Your task to perform on an android device: Go to privacy settings Image 0: 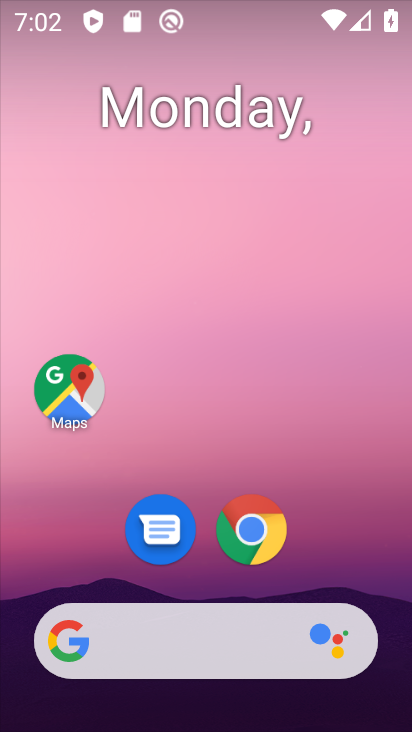
Step 0: drag from (326, 527) to (204, 84)
Your task to perform on an android device: Go to privacy settings Image 1: 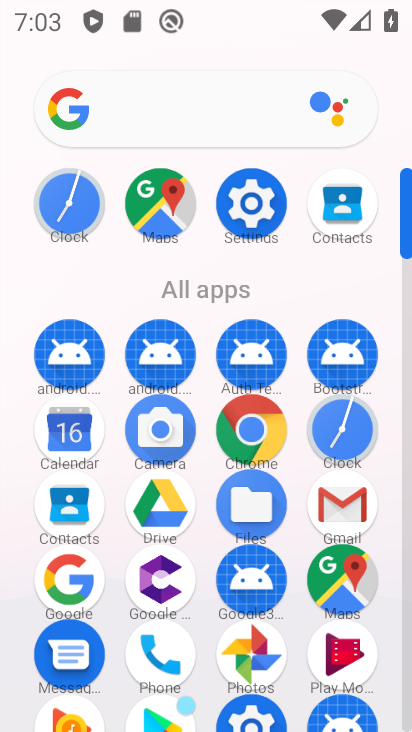
Step 1: drag from (281, 533) to (224, 244)
Your task to perform on an android device: Go to privacy settings Image 2: 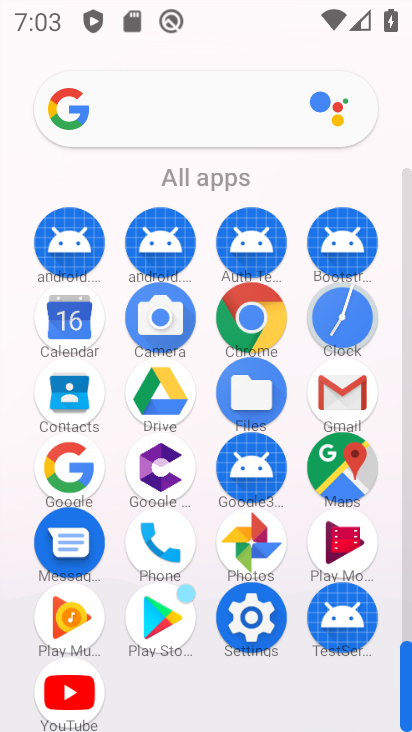
Step 2: click (241, 624)
Your task to perform on an android device: Go to privacy settings Image 3: 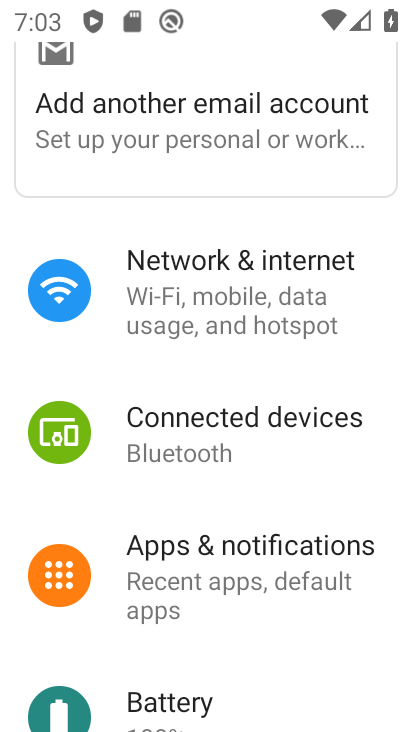
Step 3: drag from (237, 607) to (182, 394)
Your task to perform on an android device: Go to privacy settings Image 4: 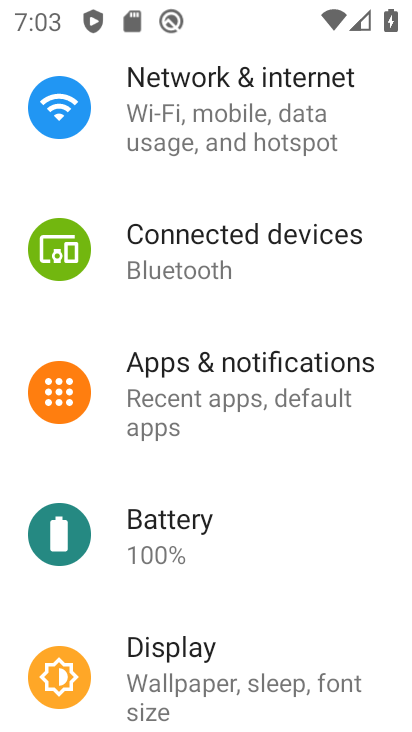
Step 4: drag from (213, 609) to (139, 389)
Your task to perform on an android device: Go to privacy settings Image 5: 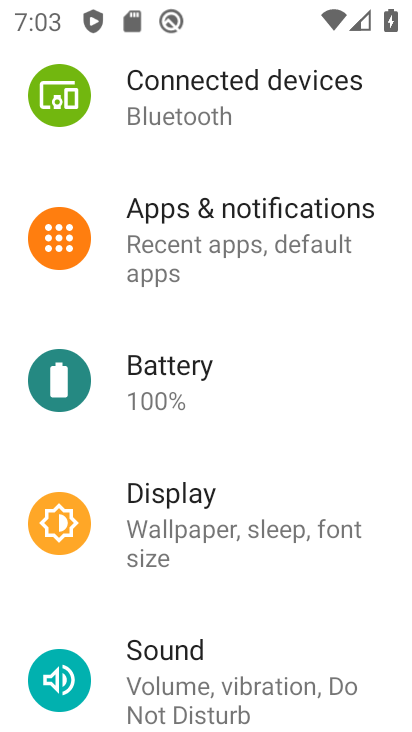
Step 5: drag from (218, 580) to (198, 273)
Your task to perform on an android device: Go to privacy settings Image 6: 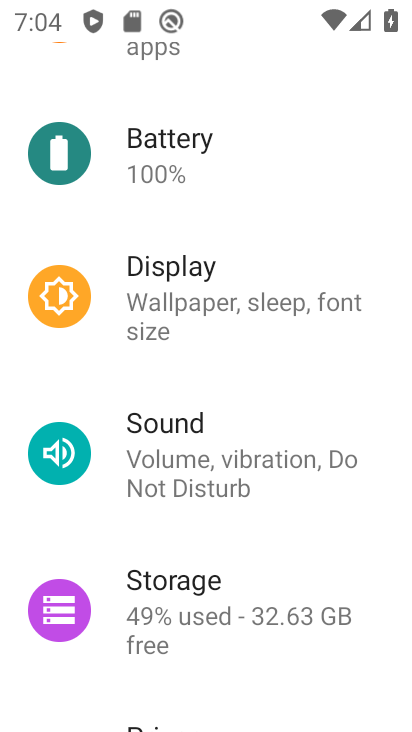
Step 6: drag from (217, 559) to (172, 326)
Your task to perform on an android device: Go to privacy settings Image 7: 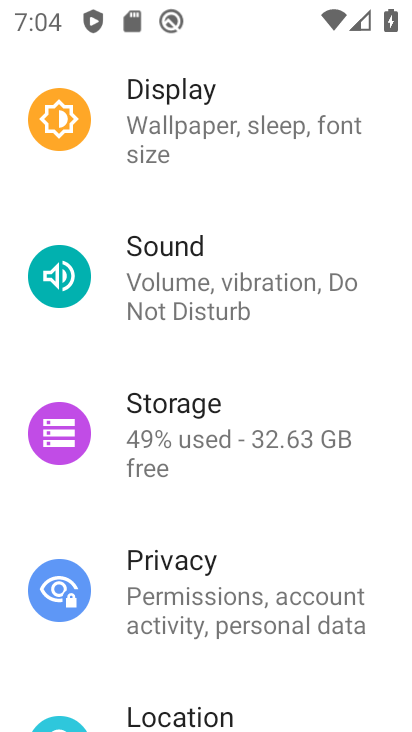
Step 7: click (179, 554)
Your task to perform on an android device: Go to privacy settings Image 8: 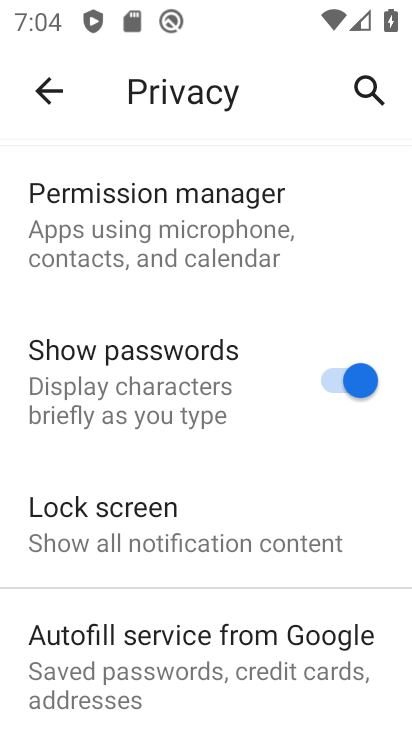
Step 8: task complete